Your task to perform on an android device: set the stopwatch Image 0: 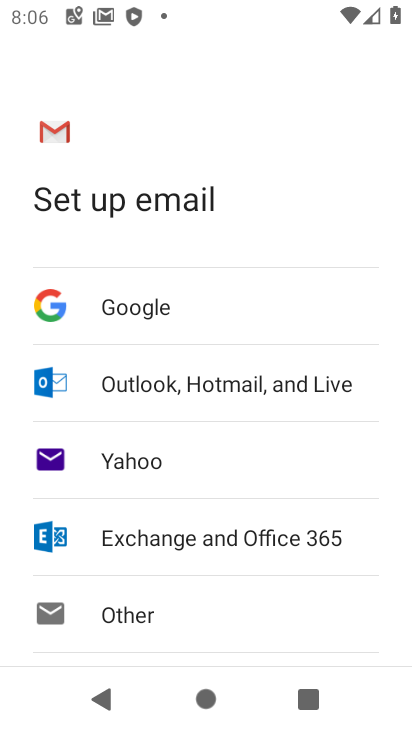
Step 0: press home button
Your task to perform on an android device: set the stopwatch Image 1: 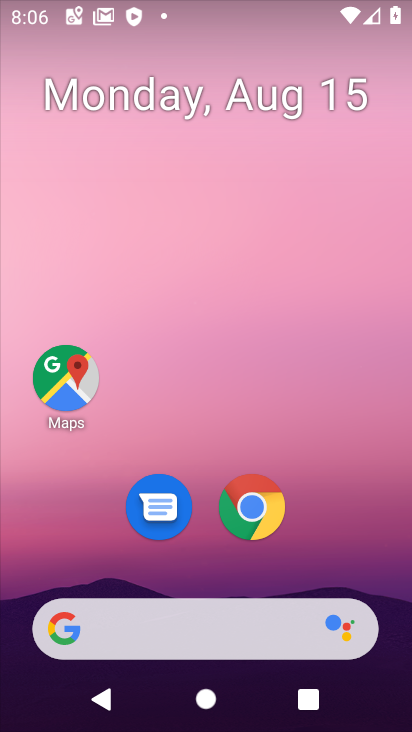
Step 1: drag from (192, 591) to (174, 3)
Your task to perform on an android device: set the stopwatch Image 2: 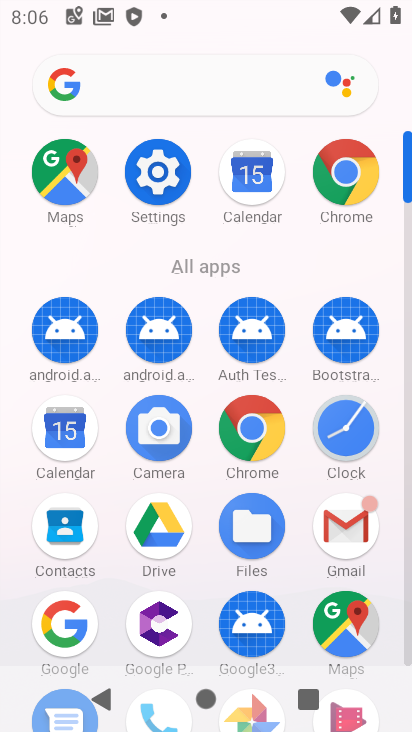
Step 2: click (60, 518)
Your task to perform on an android device: set the stopwatch Image 3: 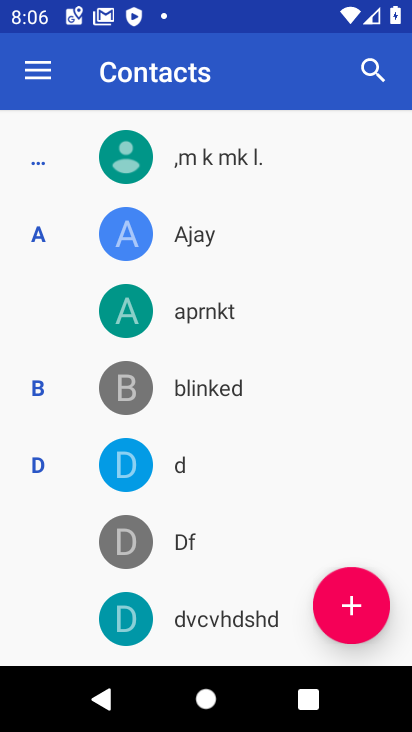
Step 3: press home button
Your task to perform on an android device: set the stopwatch Image 4: 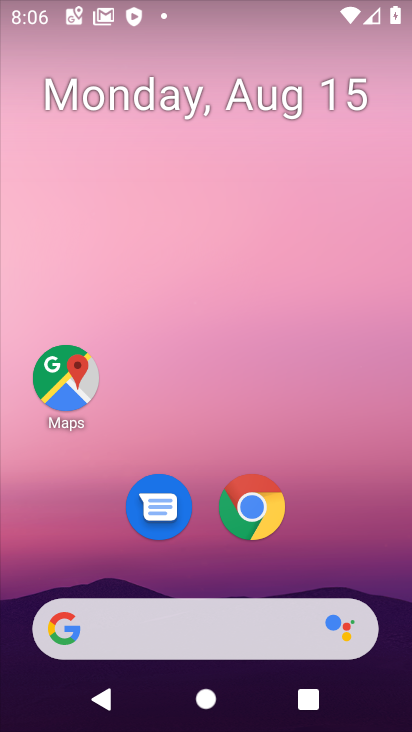
Step 4: drag from (210, 592) to (197, 78)
Your task to perform on an android device: set the stopwatch Image 5: 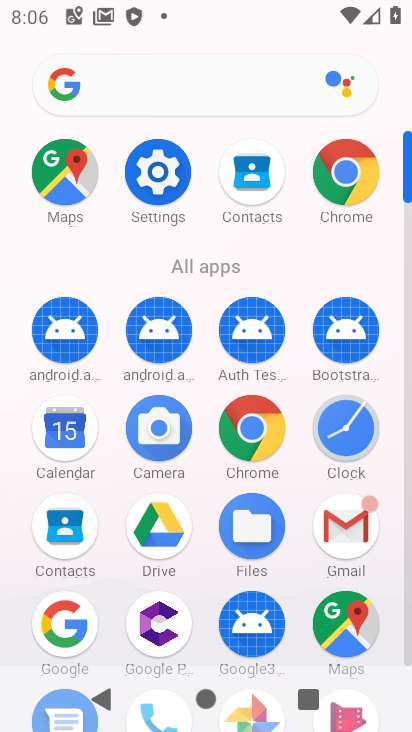
Step 5: click (365, 410)
Your task to perform on an android device: set the stopwatch Image 6: 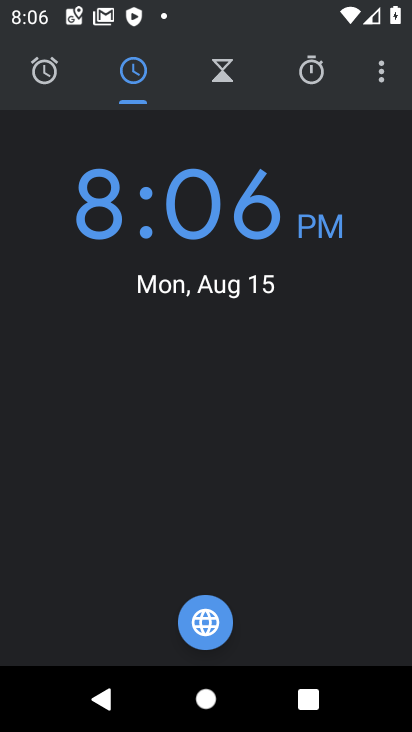
Step 6: task complete